Your task to perform on an android device: open the mobile data screen to see how much data has been used Image 0: 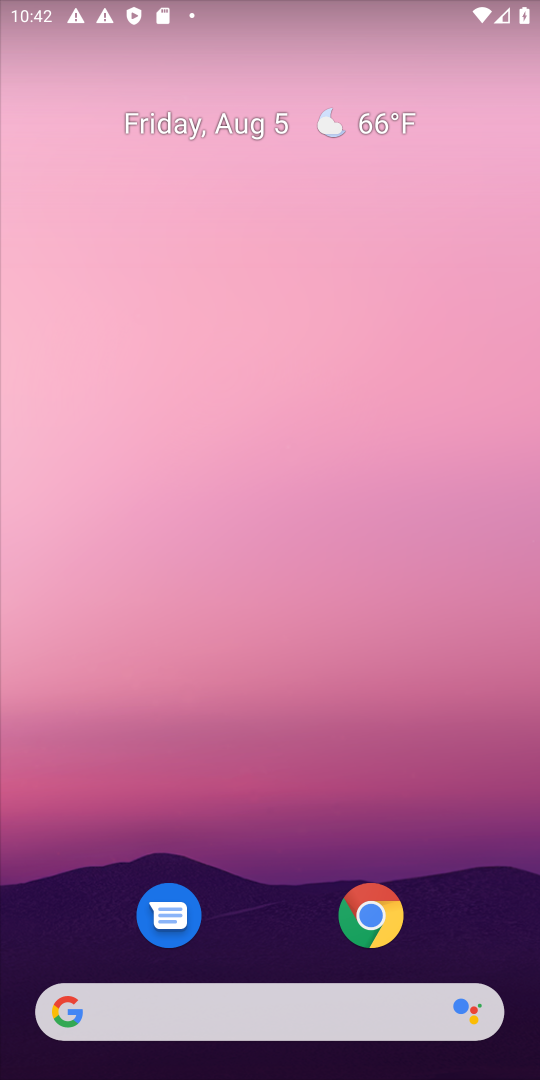
Step 0: drag from (252, 850) to (258, 396)
Your task to perform on an android device: open the mobile data screen to see how much data has been used Image 1: 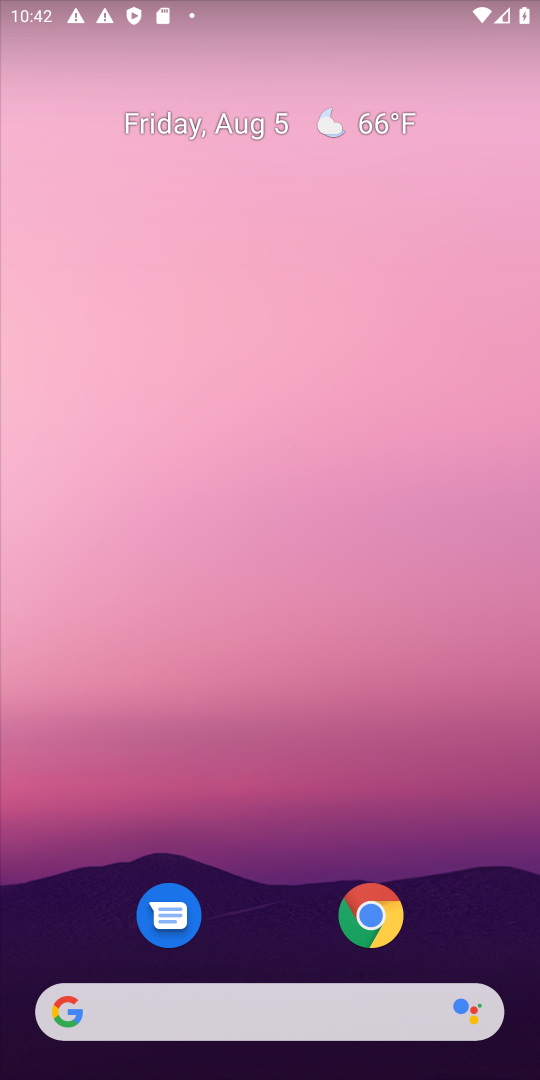
Step 1: drag from (263, 910) to (263, 287)
Your task to perform on an android device: open the mobile data screen to see how much data has been used Image 2: 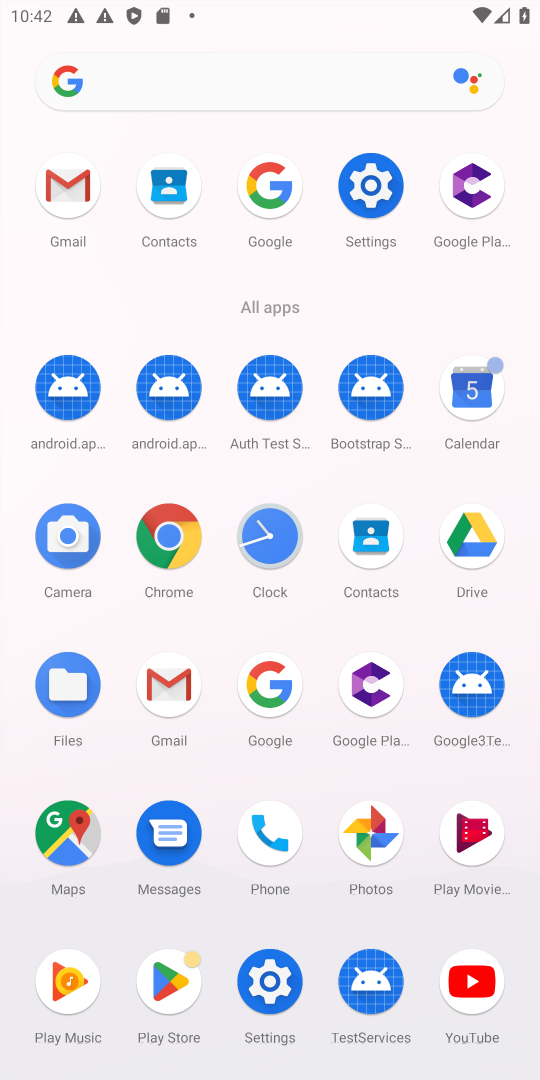
Step 2: click (372, 194)
Your task to perform on an android device: open the mobile data screen to see how much data has been used Image 3: 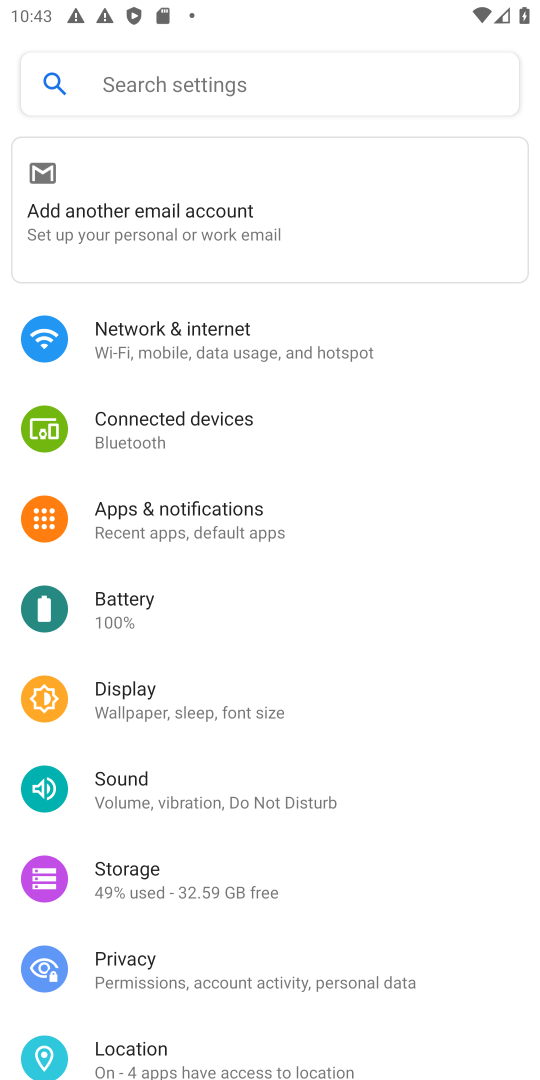
Step 3: click (168, 335)
Your task to perform on an android device: open the mobile data screen to see how much data has been used Image 4: 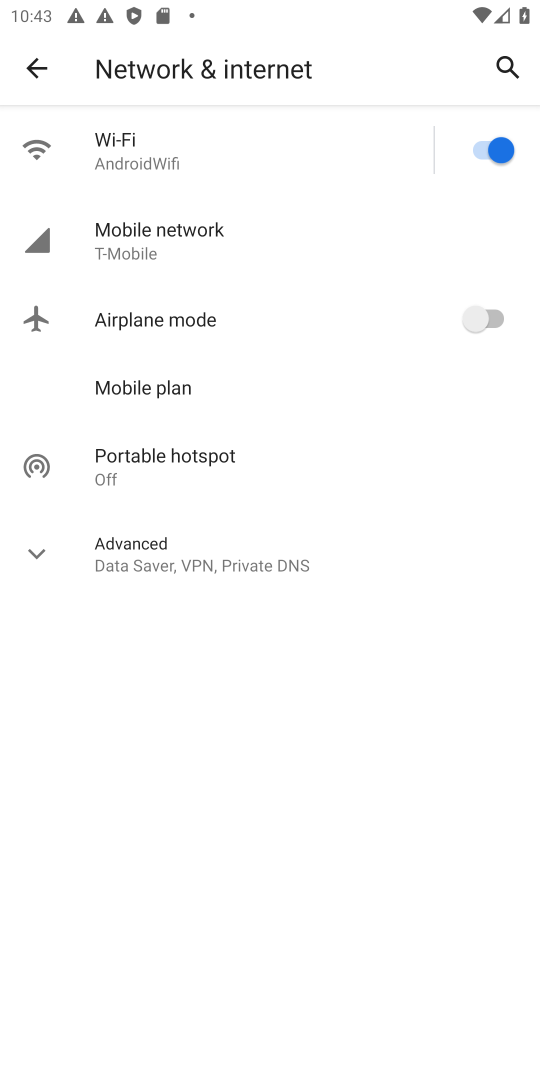
Step 4: click (151, 232)
Your task to perform on an android device: open the mobile data screen to see how much data has been used Image 5: 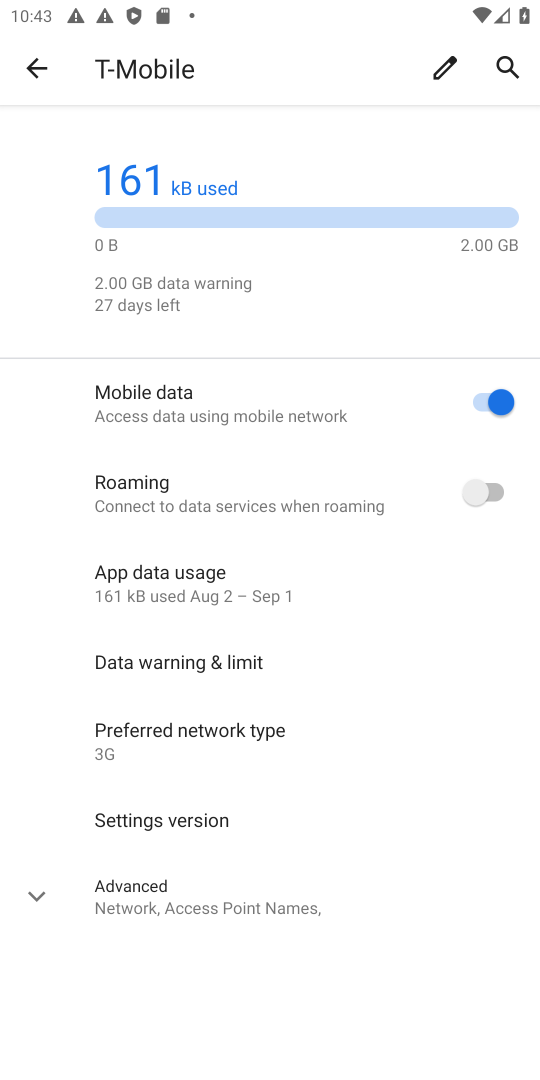
Step 5: click (155, 576)
Your task to perform on an android device: open the mobile data screen to see how much data has been used Image 6: 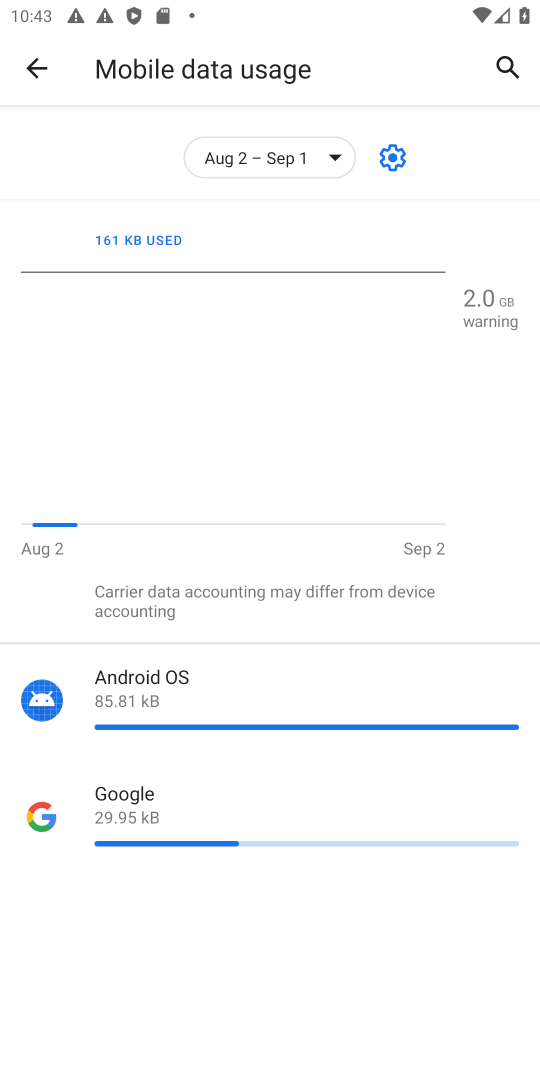
Step 6: task complete